Your task to perform on an android device: Open Google Maps and go to "Timeline" Image 0: 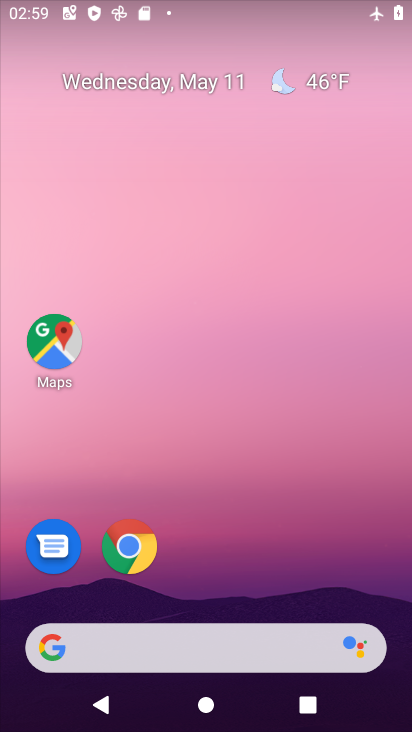
Step 0: drag from (179, 566) to (250, 189)
Your task to perform on an android device: Open Google Maps and go to "Timeline" Image 1: 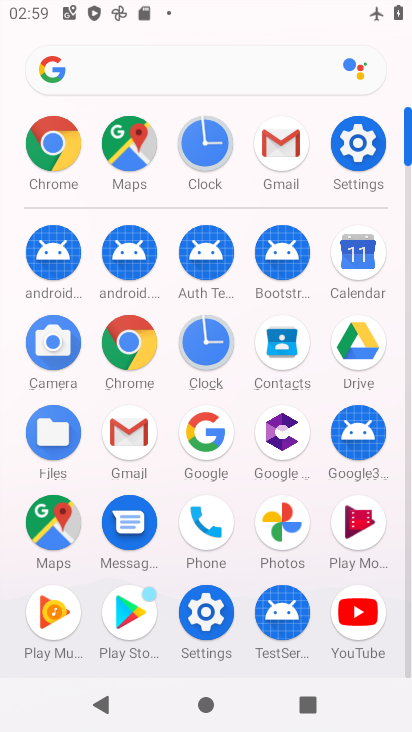
Step 1: click (49, 522)
Your task to perform on an android device: Open Google Maps and go to "Timeline" Image 2: 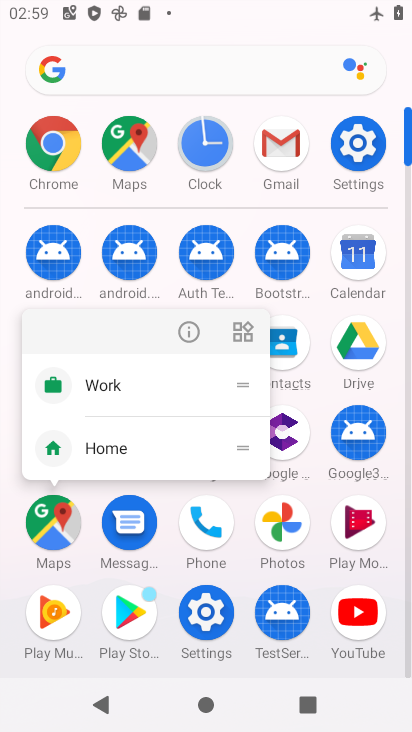
Step 2: click (191, 328)
Your task to perform on an android device: Open Google Maps and go to "Timeline" Image 3: 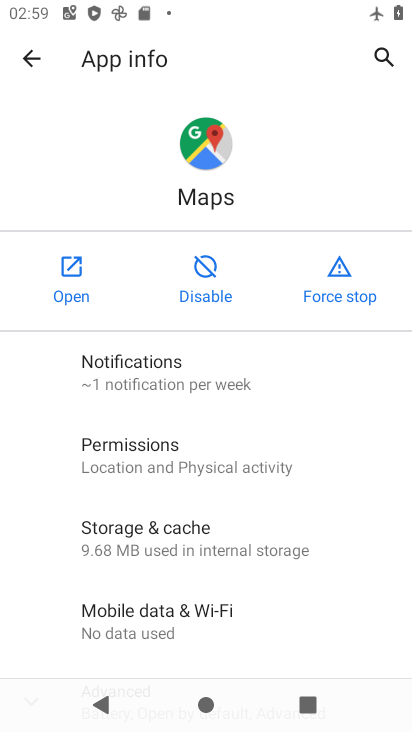
Step 3: click (75, 270)
Your task to perform on an android device: Open Google Maps and go to "Timeline" Image 4: 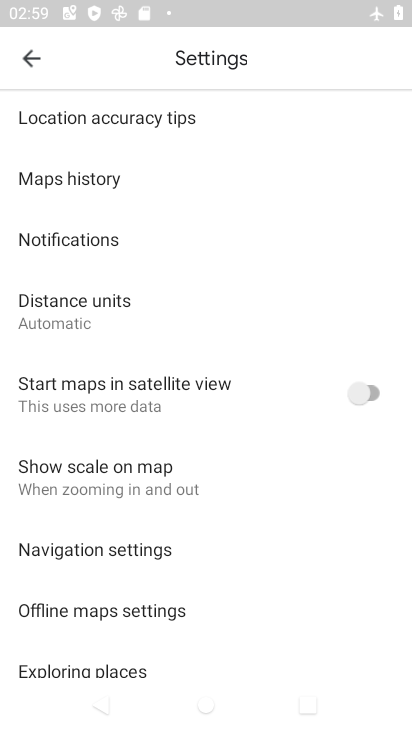
Step 4: click (14, 49)
Your task to perform on an android device: Open Google Maps and go to "Timeline" Image 5: 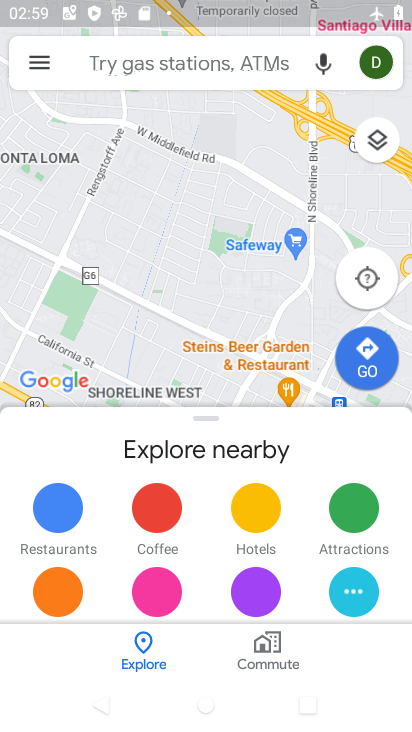
Step 5: click (32, 51)
Your task to perform on an android device: Open Google Maps and go to "Timeline" Image 6: 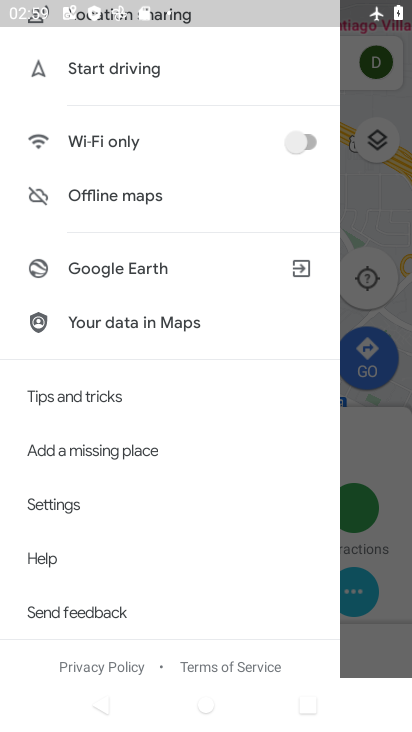
Step 6: drag from (146, 142) to (153, 712)
Your task to perform on an android device: Open Google Maps and go to "Timeline" Image 7: 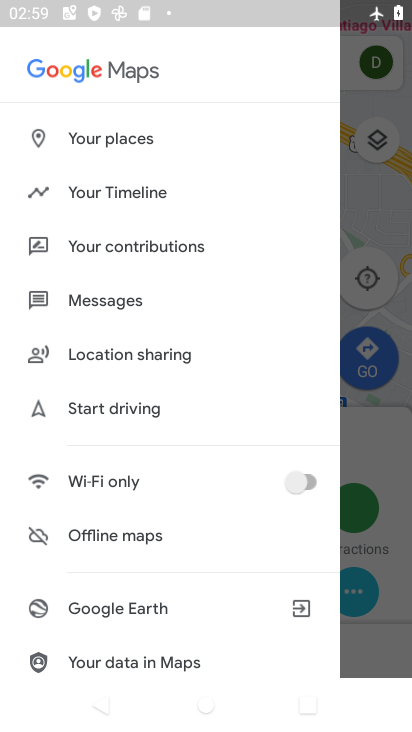
Step 7: click (155, 194)
Your task to perform on an android device: Open Google Maps and go to "Timeline" Image 8: 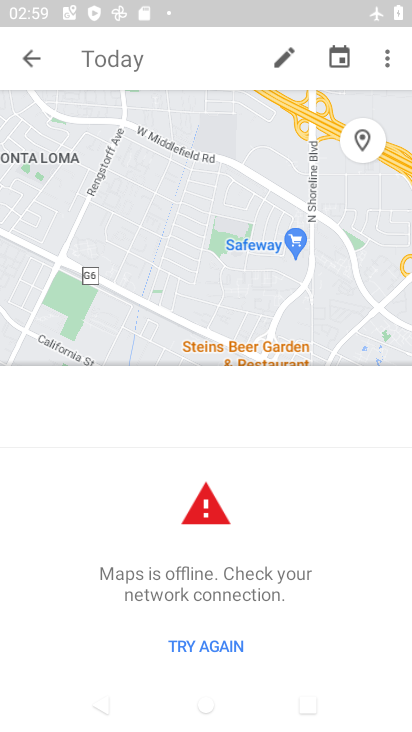
Step 8: task complete